Your task to perform on an android device: make emails show in primary in the gmail app Image 0: 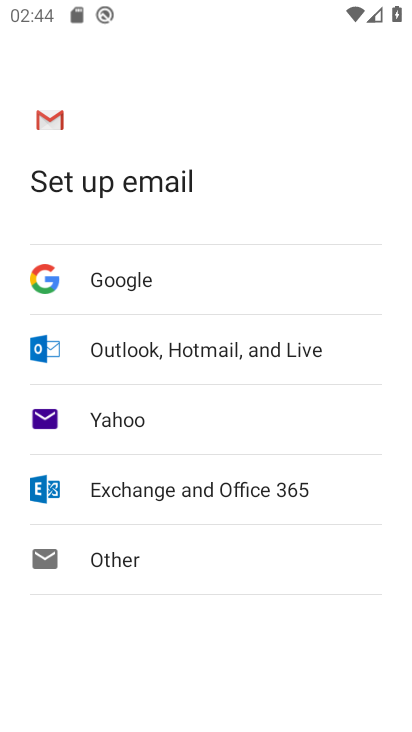
Step 0: press home button
Your task to perform on an android device: make emails show in primary in the gmail app Image 1: 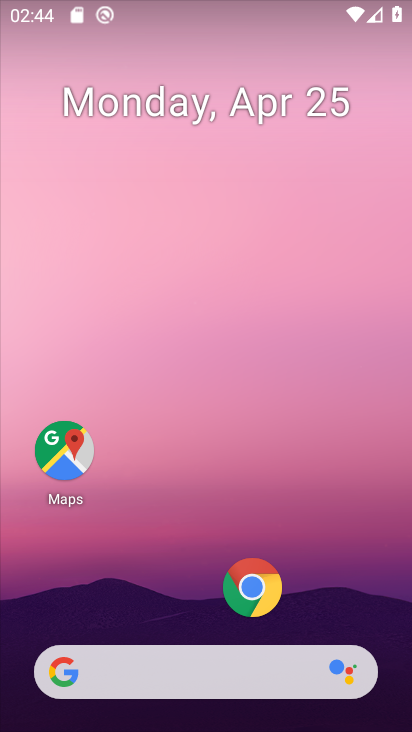
Step 1: drag from (214, 621) to (169, 112)
Your task to perform on an android device: make emails show in primary in the gmail app Image 2: 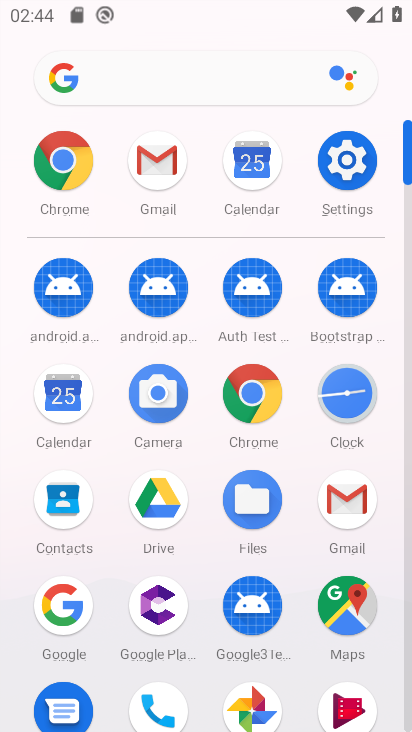
Step 2: click (344, 490)
Your task to perform on an android device: make emails show in primary in the gmail app Image 3: 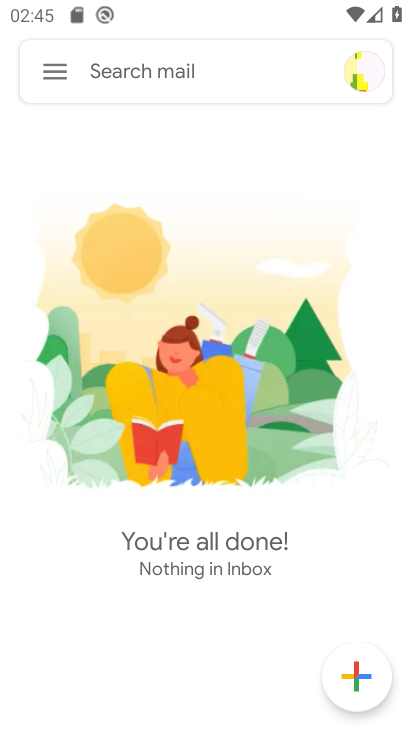
Step 3: click (57, 80)
Your task to perform on an android device: make emails show in primary in the gmail app Image 4: 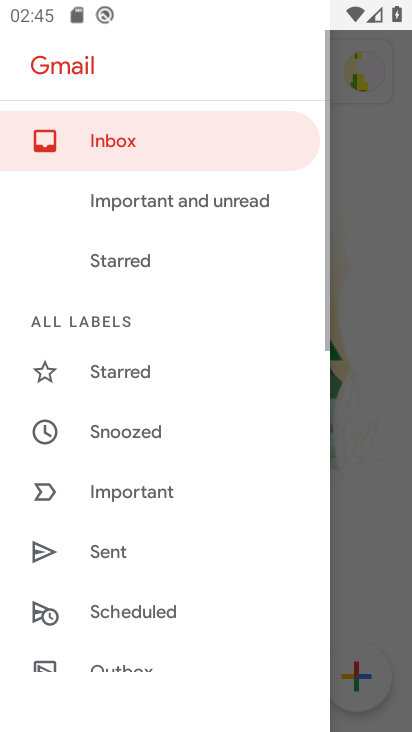
Step 4: drag from (153, 601) to (178, 106)
Your task to perform on an android device: make emails show in primary in the gmail app Image 5: 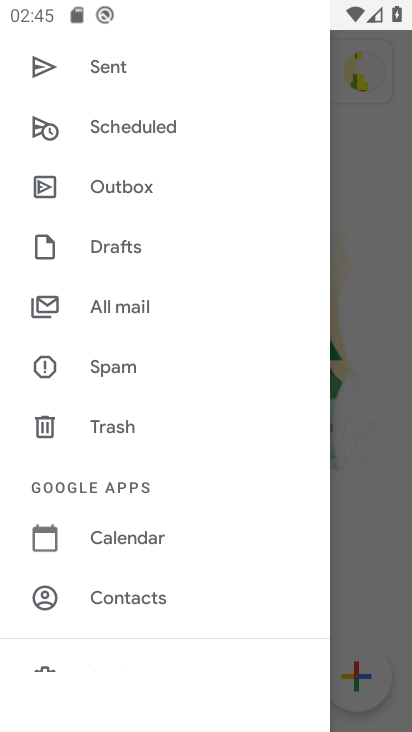
Step 5: drag from (138, 614) to (134, 142)
Your task to perform on an android device: make emails show in primary in the gmail app Image 6: 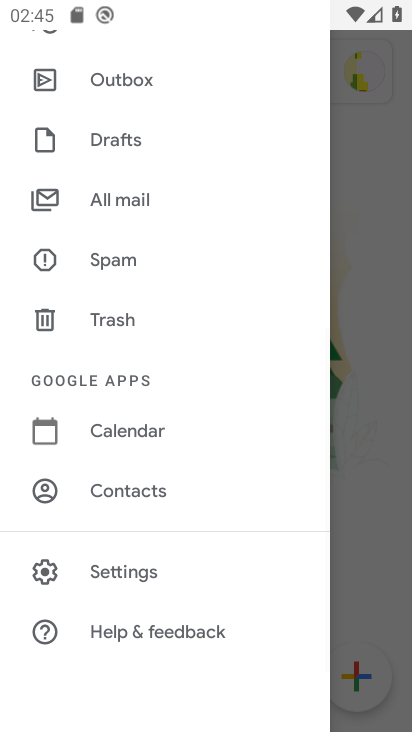
Step 6: click (173, 561)
Your task to perform on an android device: make emails show in primary in the gmail app Image 7: 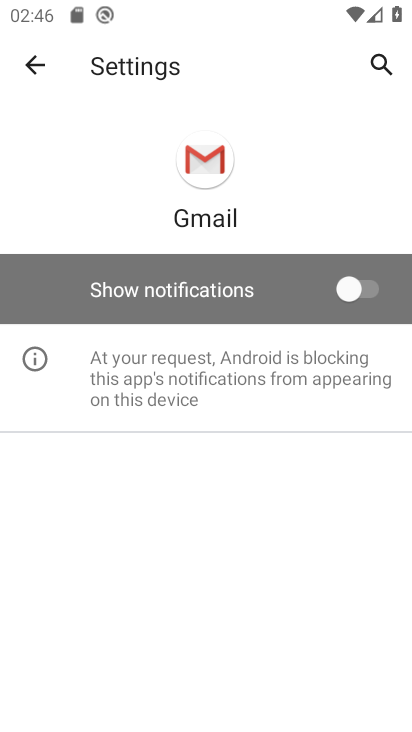
Step 7: click (42, 65)
Your task to perform on an android device: make emails show in primary in the gmail app Image 8: 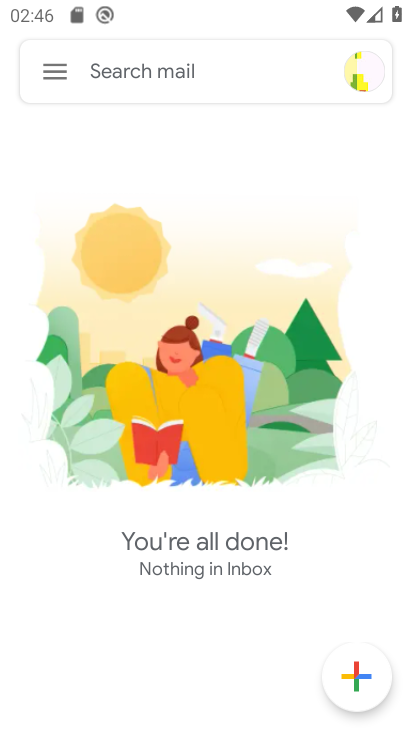
Step 8: click (61, 61)
Your task to perform on an android device: make emails show in primary in the gmail app Image 9: 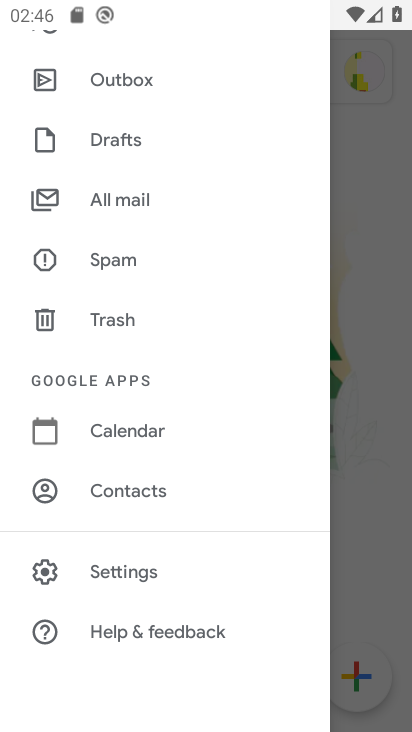
Step 9: click (74, 568)
Your task to perform on an android device: make emails show in primary in the gmail app Image 10: 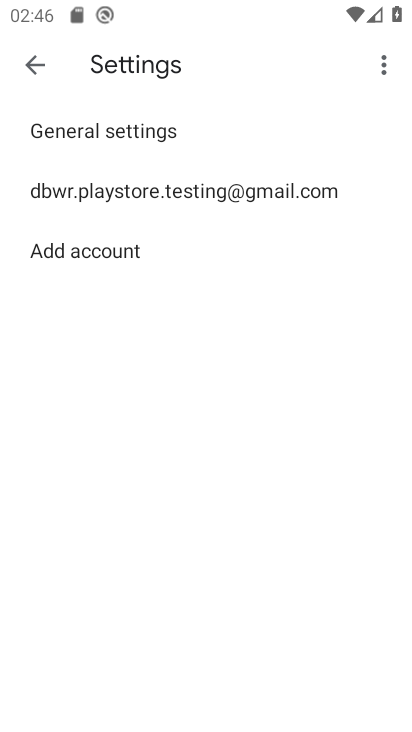
Step 10: click (233, 176)
Your task to perform on an android device: make emails show in primary in the gmail app Image 11: 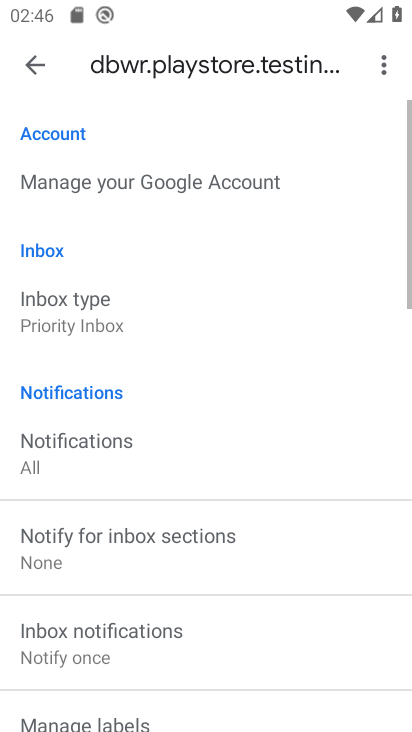
Step 11: click (93, 299)
Your task to perform on an android device: make emails show in primary in the gmail app Image 12: 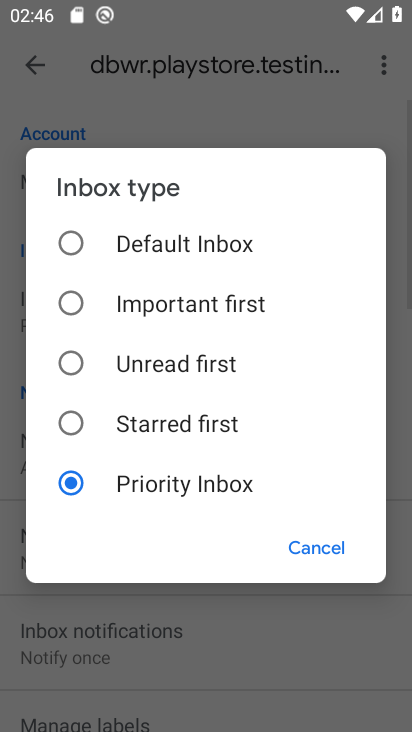
Step 12: click (69, 249)
Your task to perform on an android device: make emails show in primary in the gmail app Image 13: 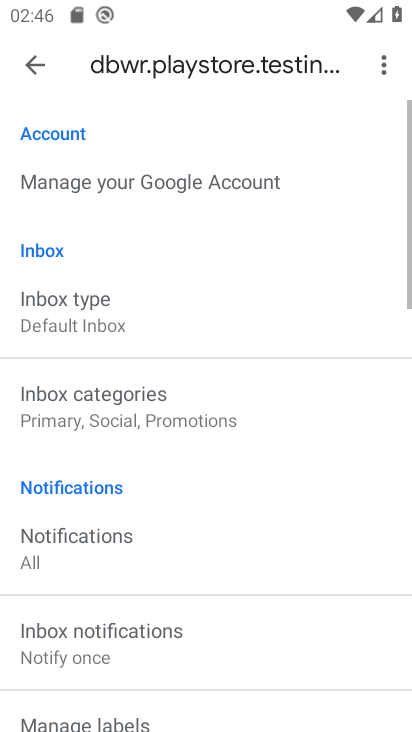
Step 13: task complete